Your task to perform on an android device: turn on airplane mode Image 0: 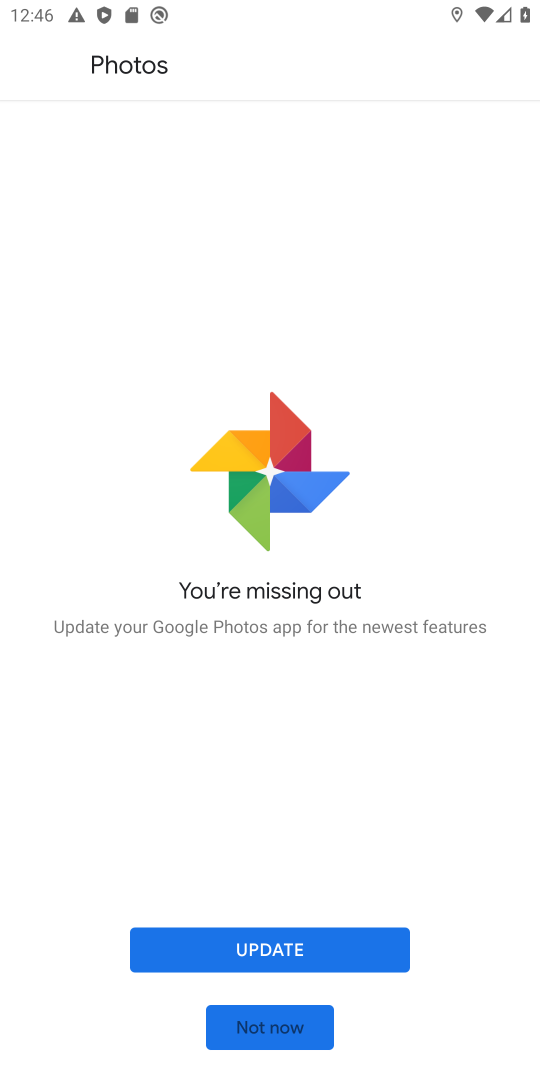
Step 0: press home button
Your task to perform on an android device: turn on airplane mode Image 1: 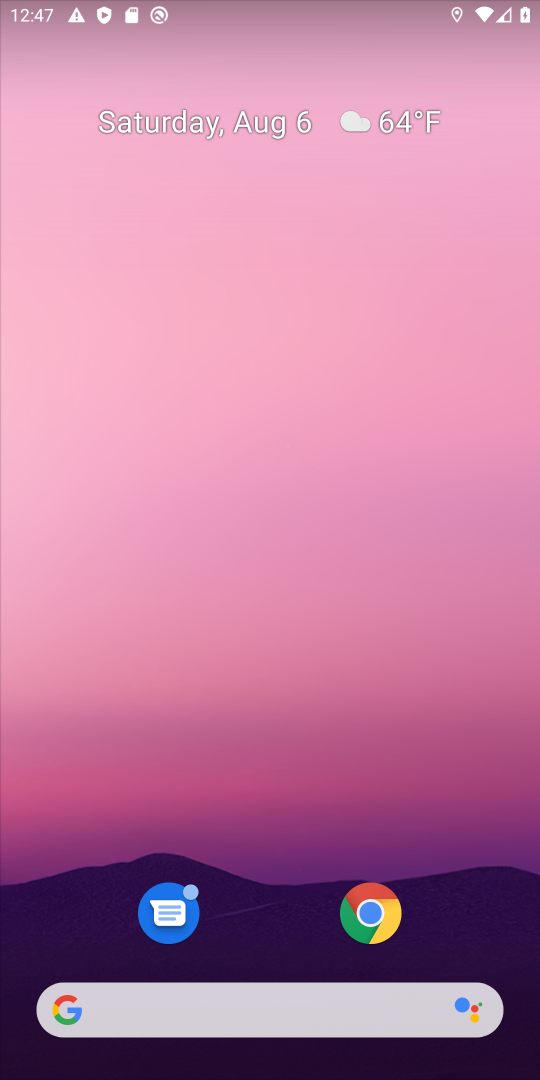
Step 1: drag from (302, 887) to (329, 334)
Your task to perform on an android device: turn on airplane mode Image 2: 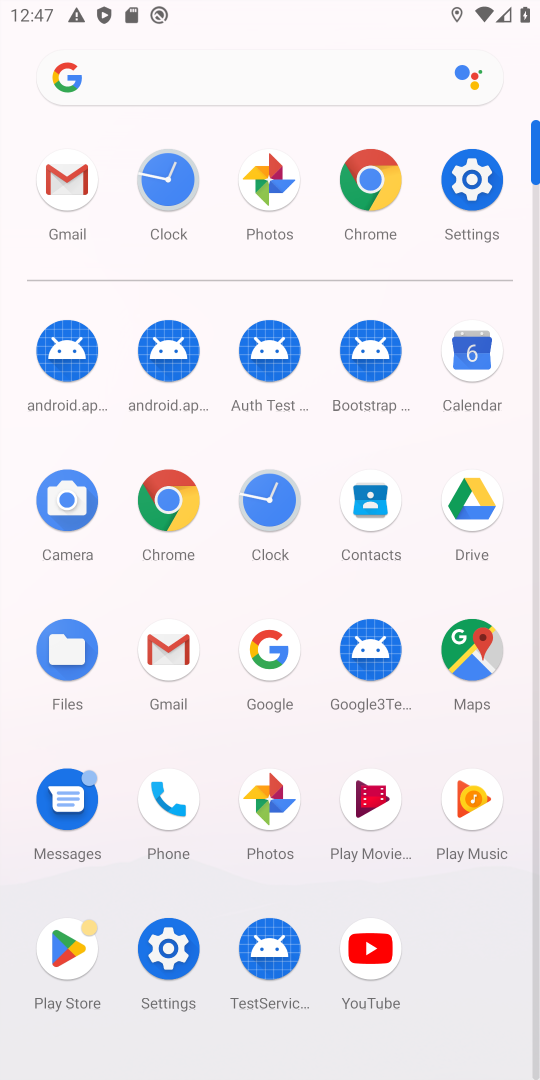
Step 2: click (463, 188)
Your task to perform on an android device: turn on airplane mode Image 3: 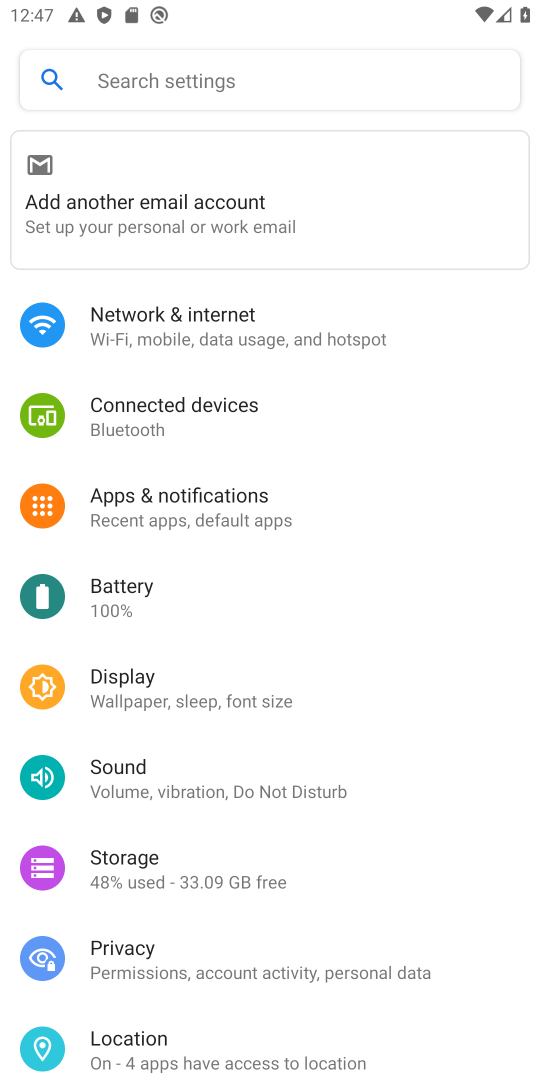
Step 3: drag from (419, 770) to (419, 615)
Your task to perform on an android device: turn on airplane mode Image 4: 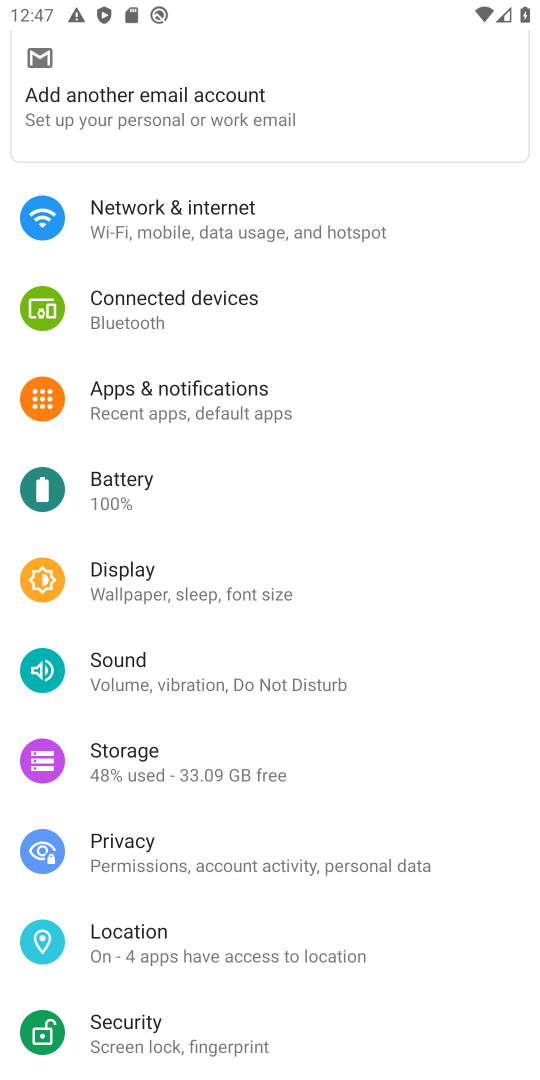
Step 4: drag from (434, 775) to (454, 552)
Your task to perform on an android device: turn on airplane mode Image 5: 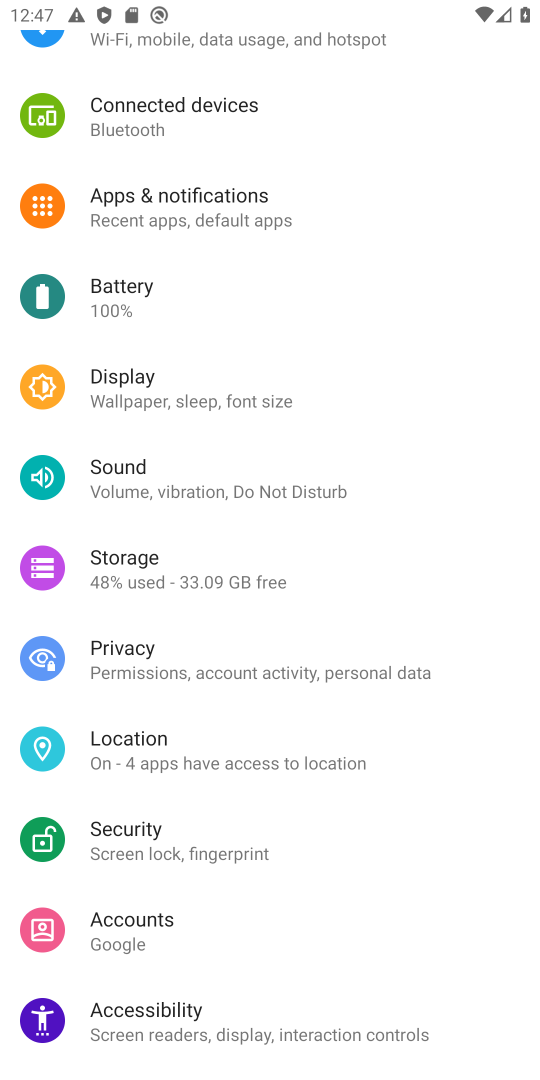
Step 5: drag from (453, 786) to (457, 499)
Your task to perform on an android device: turn on airplane mode Image 6: 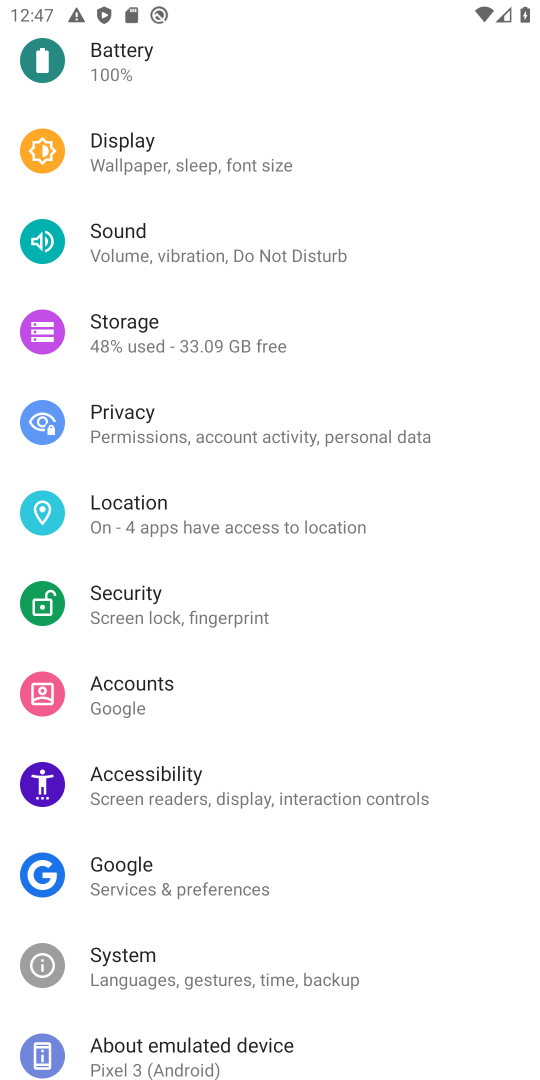
Step 6: drag from (472, 733) to (450, 492)
Your task to perform on an android device: turn on airplane mode Image 7: 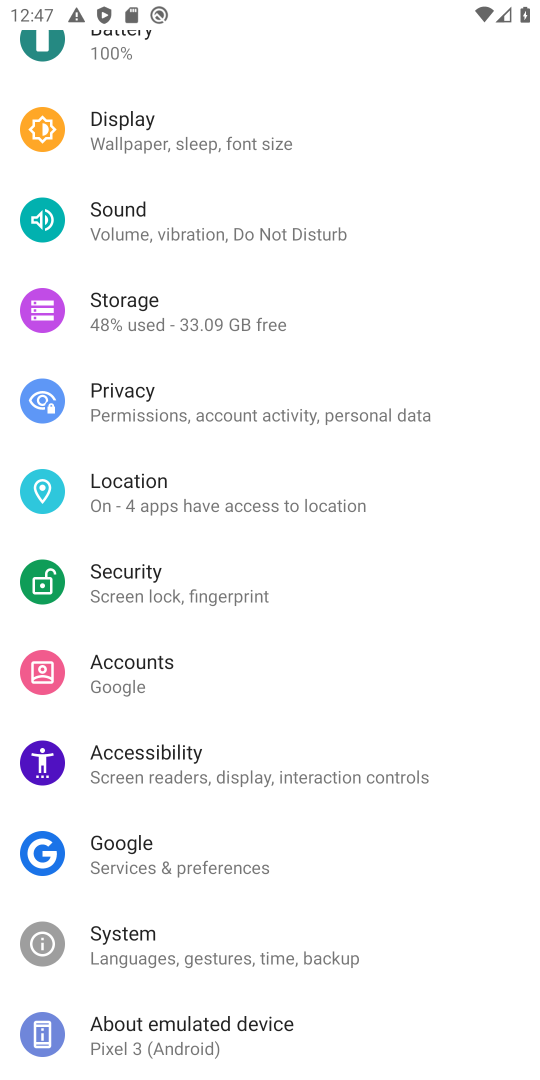
Step 7: drag from (451, 416) to (449, 640)
Your task to perform on an android device: turn on airplane mode Image 8: 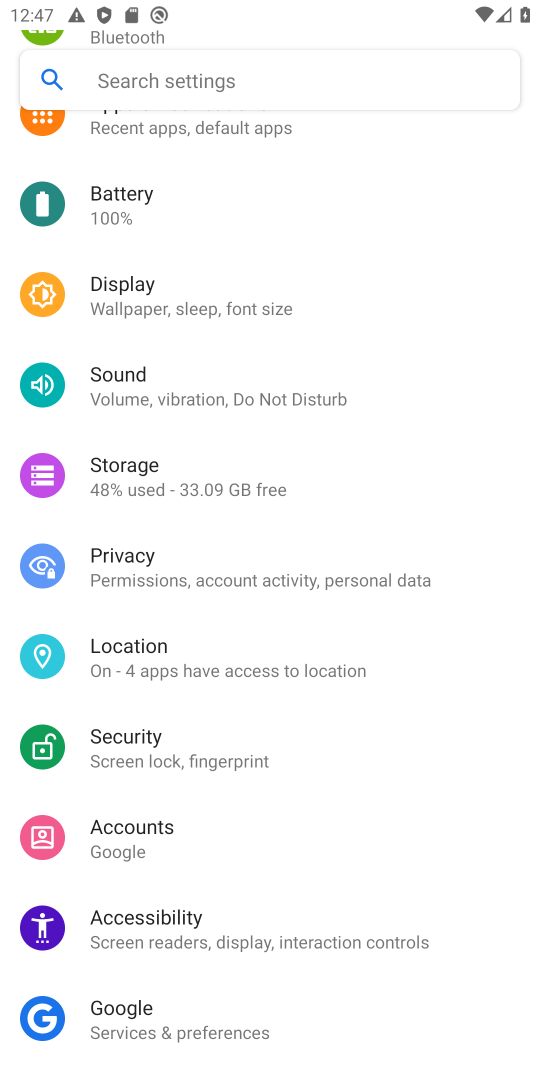
Step 8: drag from (454, 334) to (458, 596)
Your task to perform on an android device: turn on airplane mode Image 9: 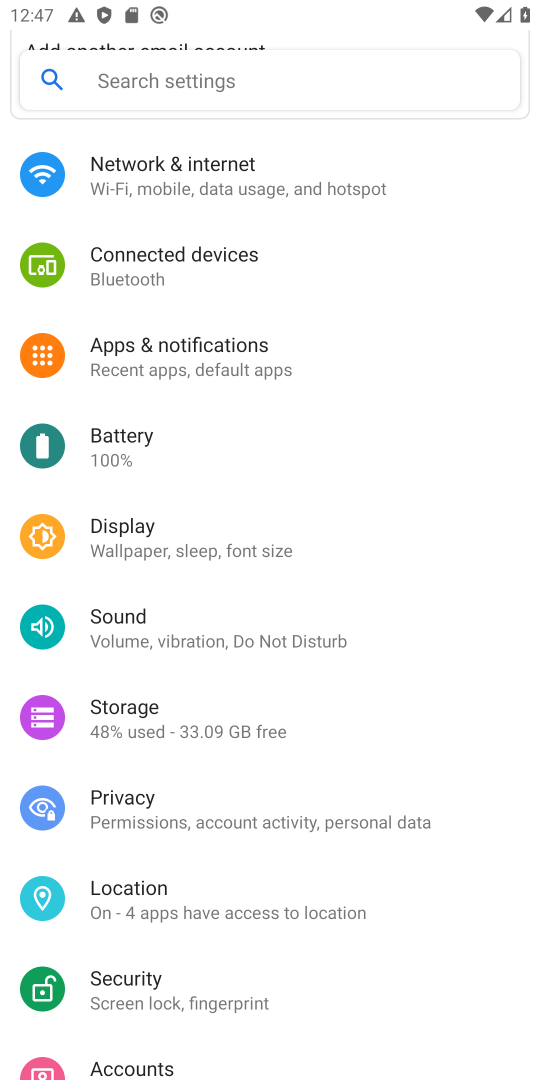
Step 9: drag from (442, 357) to (440, 643)
Your task to perform on an android device: turn on airplane mode Image 10: 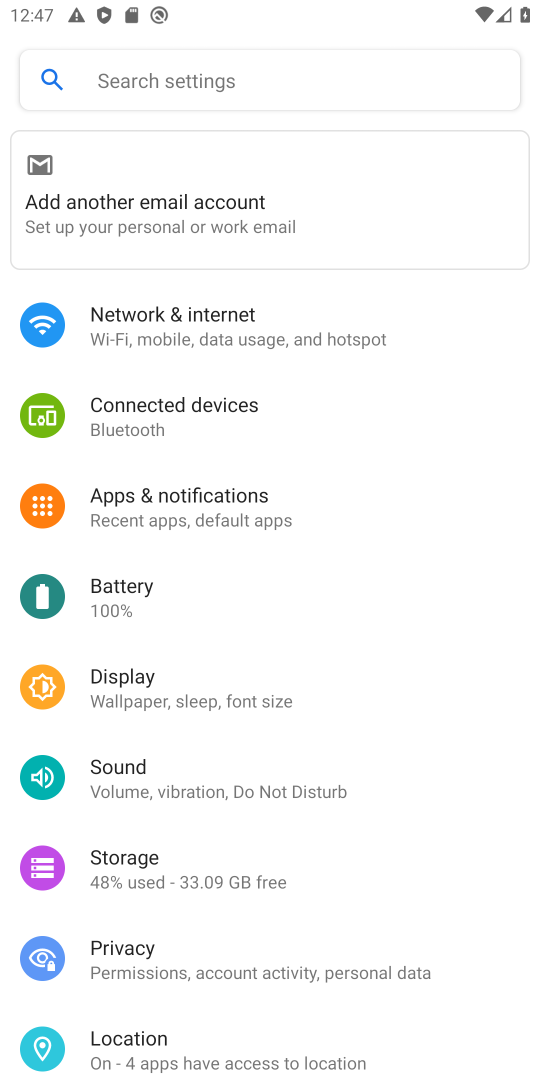
Step 10: drag from (441, 421) to (452, 654)
Your task to perform on an android device: turn on airplane mode Image 11: 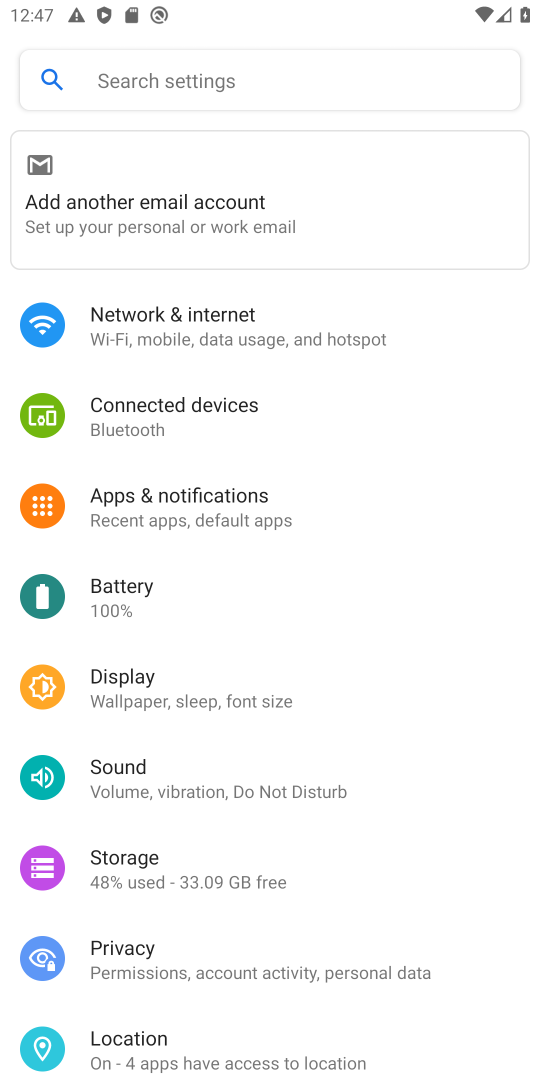
Step 11: click (298, 335)
Your task to perform on an android device: turn on airplane mode Image 12: 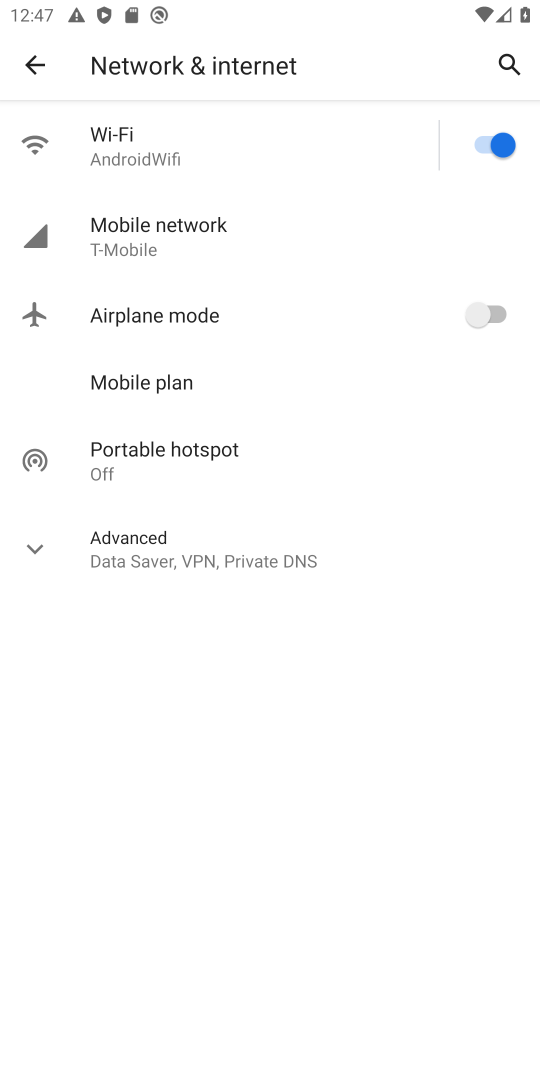
Step 12: click (480, 319)
Your task to perform on an android device: turn on airplane mode Image 13: 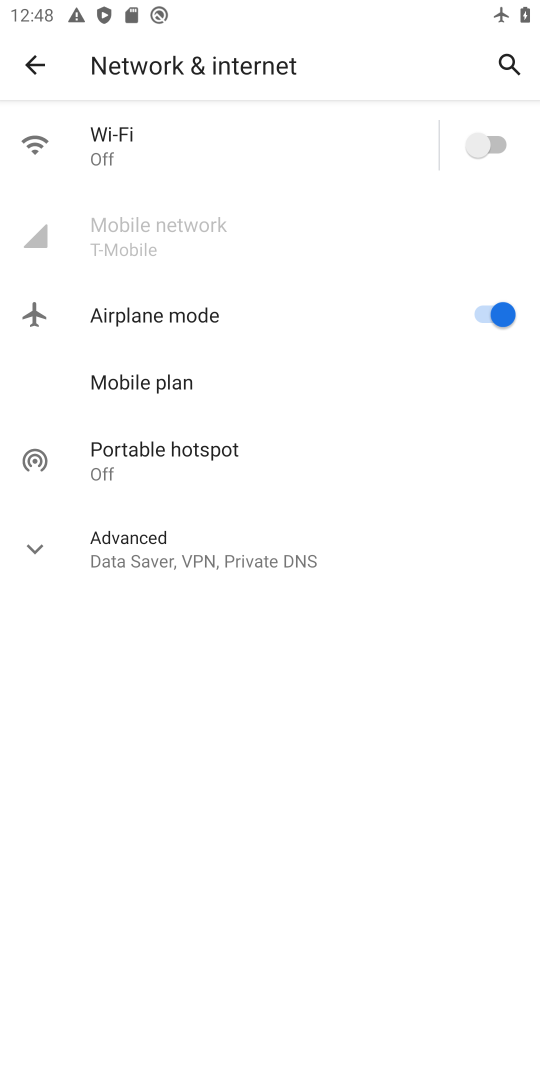
Step 13: task complete